Your task to perform on an android device: Play the last video I watched on Youtube Image 0: 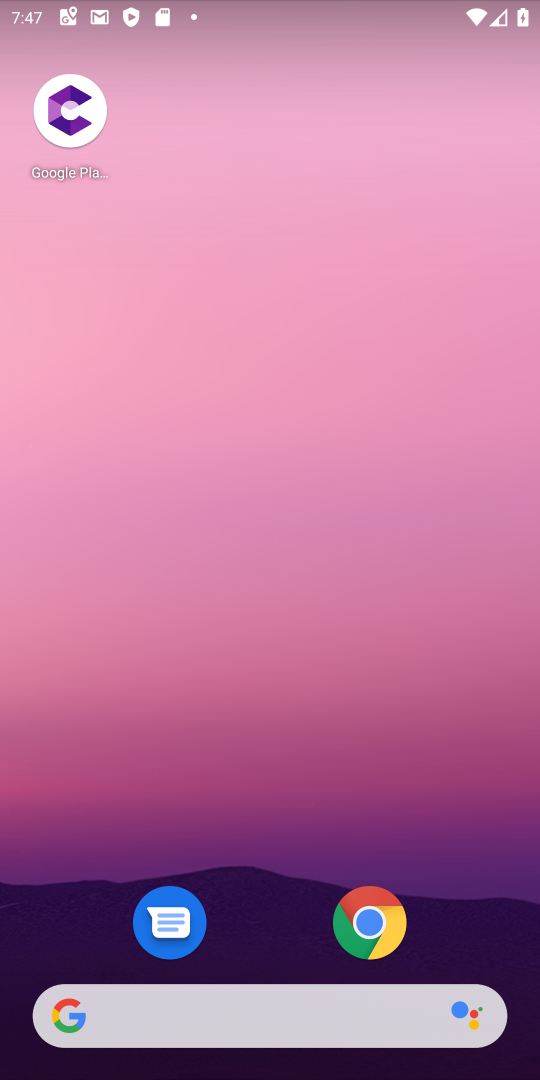
Step 0: drag from (474, 924) to (337, 137)
Your task to perform on an android device: Play the last video I watched on Youtube Image 1: 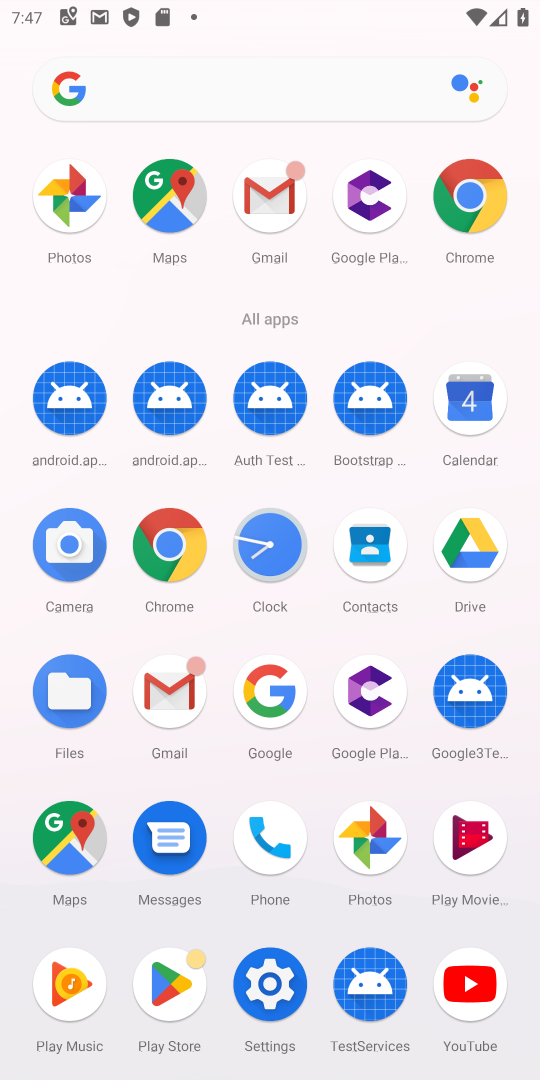
Step 1: click (472, 989)
Your task to perform on an android device: Play the last video I watched on Youtube Image 2: 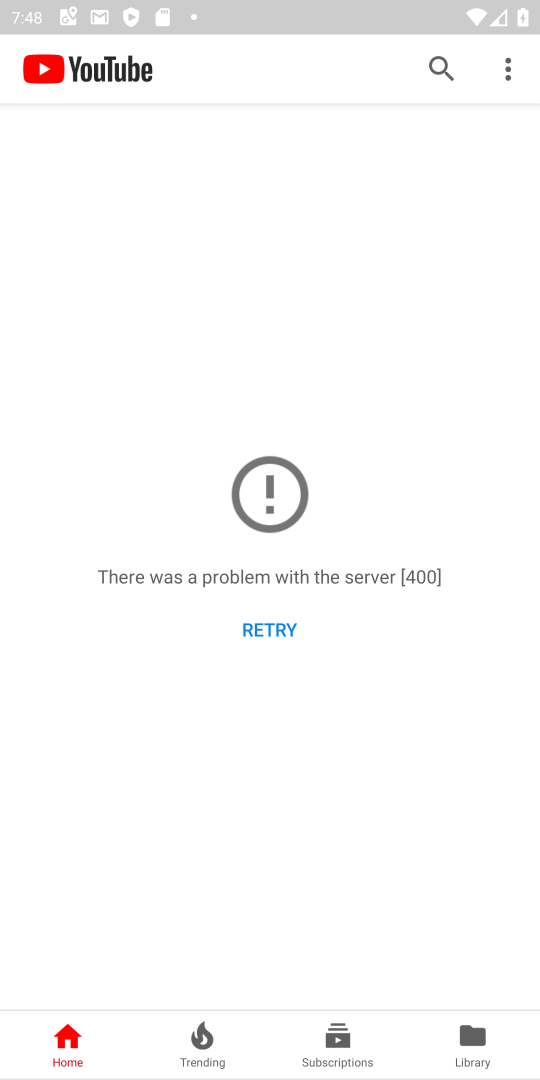
Step 2: click (447, 59)
Your task to perform on an android device: Play the last video I watched on Youtube Image 3: 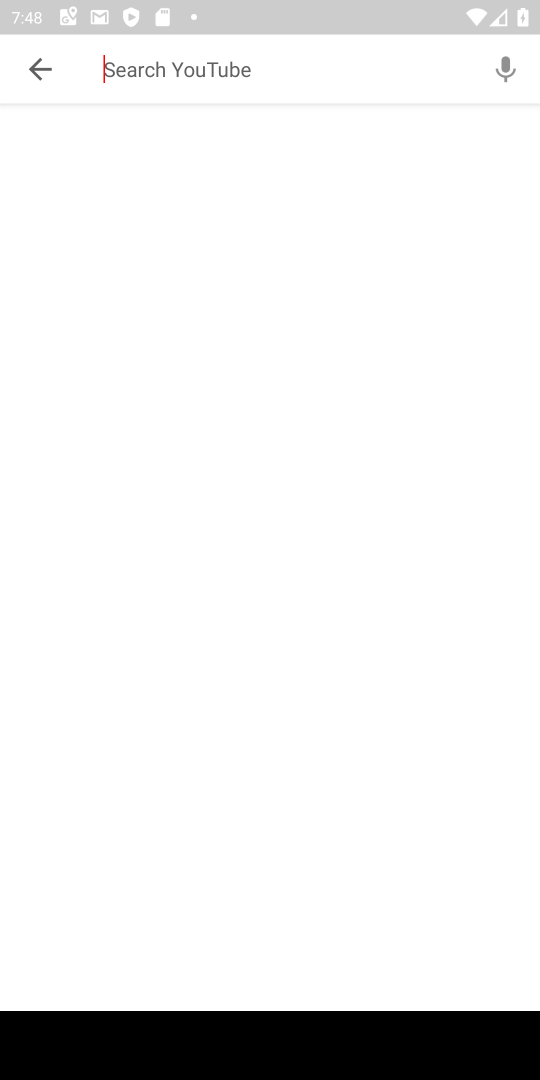
Step 3: task complete